Your task to perform on an android device: Go to eBay Image 0: 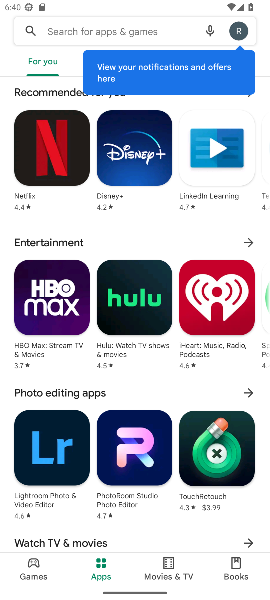
Step 0: press home button
Your task to perform on an android device: Go to eBay Image 1: 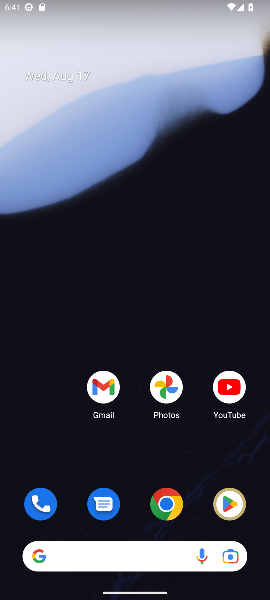
Step 1: drag from (143, 438) to (100, 57)
Your task to perform on an android device: Go to eBay Image 2: 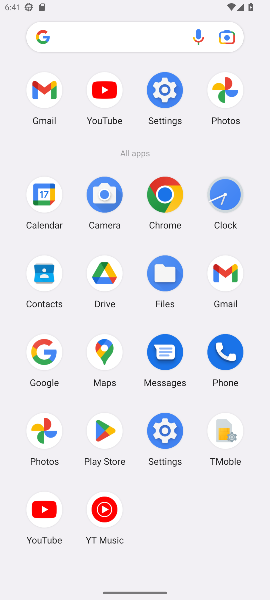
Step 2: click (156, 209)
Your task to perform on an android device: Go to eBay Image 3: 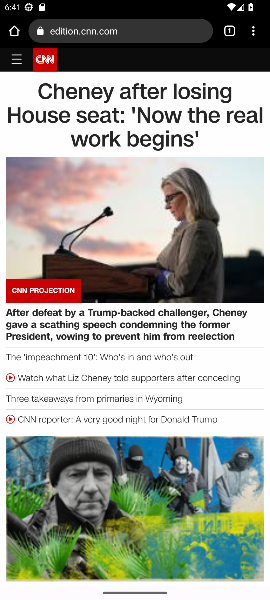
Step 3: click (226, 28)
Your task to perform on an android device: Go to eBay Image 4: 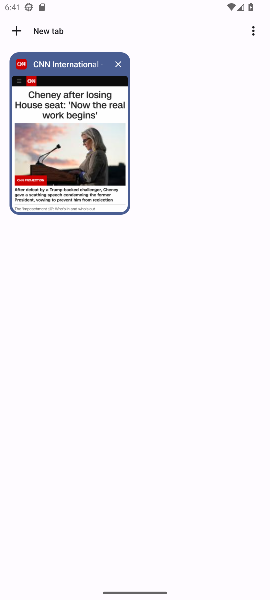
Step 4: click (40, 31)
Your task to perform on an android device: Go to eBay Image 5: 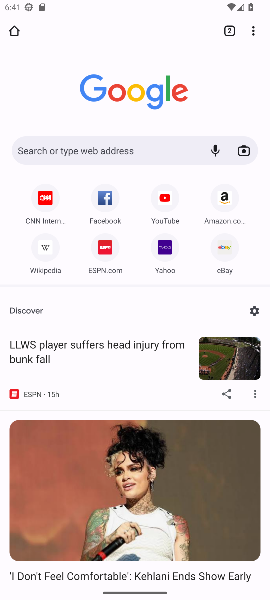
Step 5: click (225, 258)
Your task to perform on an android device: Go to eBay Image 6: 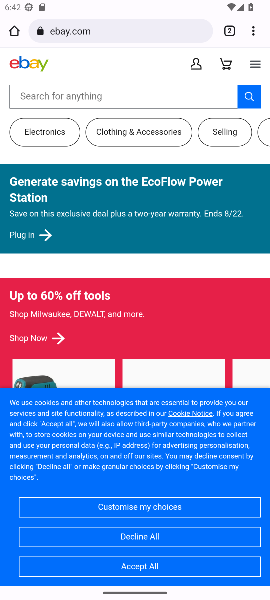
Step 6: task complete